Your task to perform on an android device: Open sound settings Image 0: 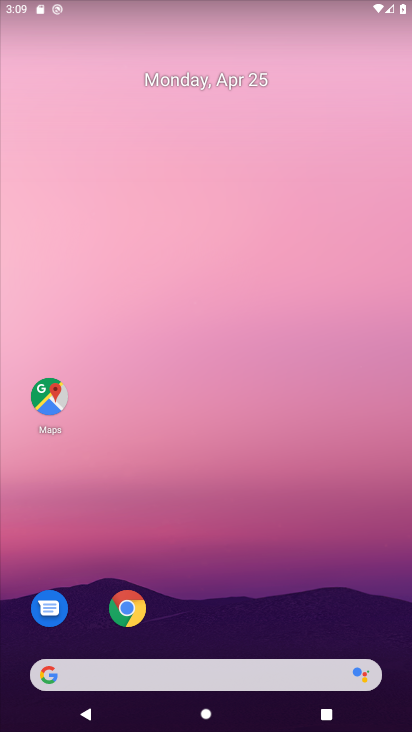
Step 0: drag from (249, 577) to (303, 4)
Your task to perform on an android device: Open sound settings Image 1: 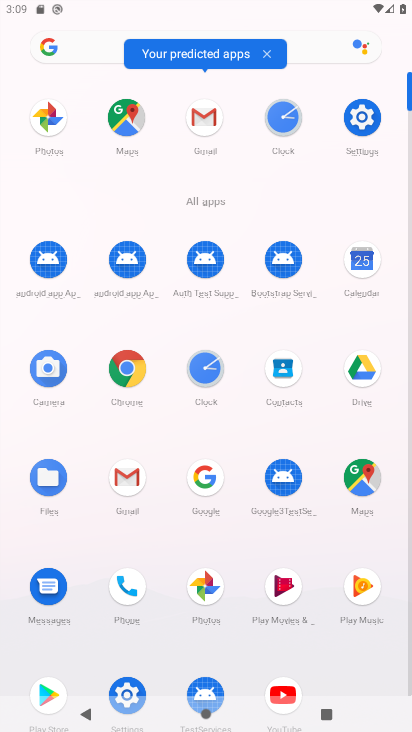
Step 1: click (368, 141)
Your task to perform on an android device: Open sound settings Image 2: 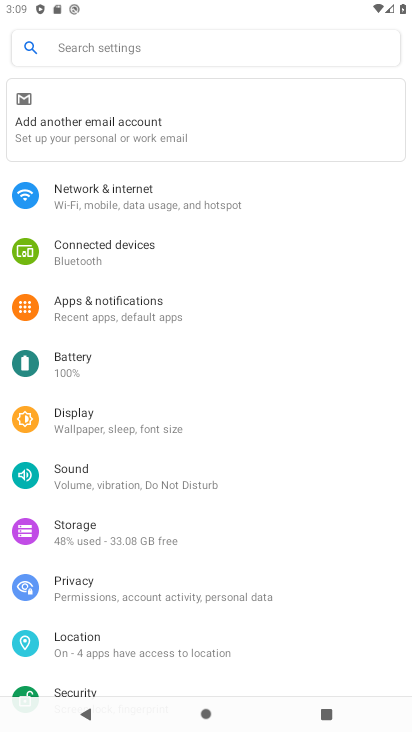
Step 2: click (187, 474)
Your task to perform on an android device: Open sound settings Image 3: 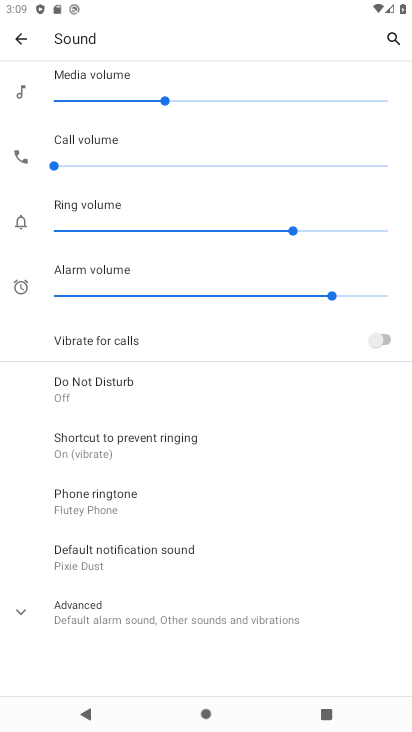
Step 3: task complete